Your task to perform on an android device: When is my next meeting? Image 0: 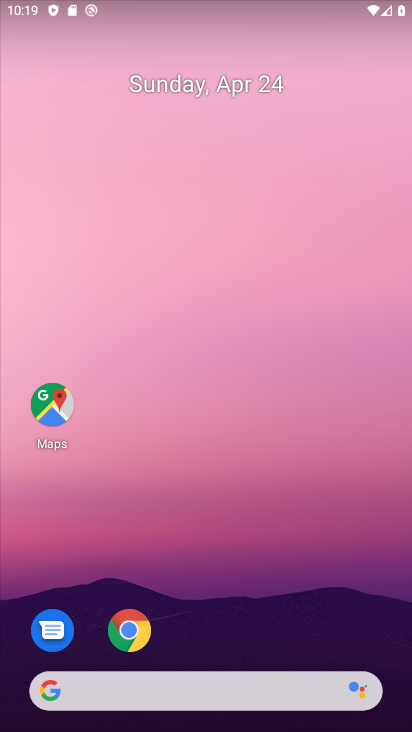
Step 0: drag from (191, 639) to (204, 157)
Your task to perform on an android device: When is my next meeting? Image 1: 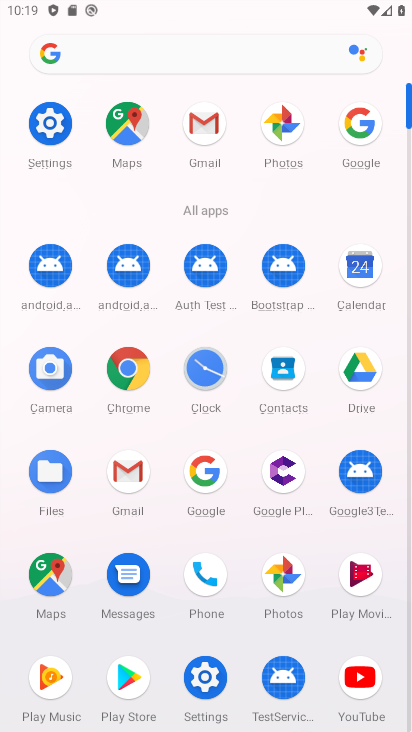
Step 1: click (359, 272)
Your task to perform on an android device: When is my next meeting? Image 2: 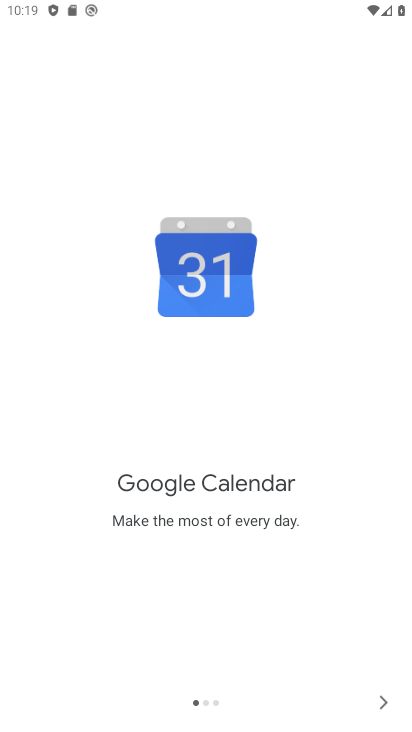
Step 2: click (377, 699)
Your task to perform on an android device: When is my next meeting? Image 3: 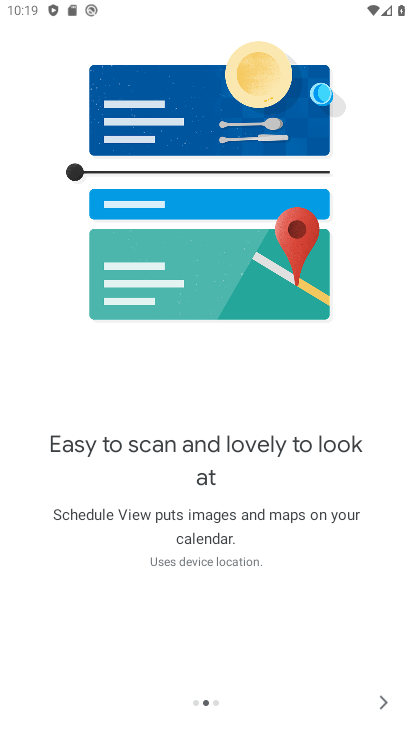
Step 3: click (375, 700)
Your task to perform on an android device: When is my next meeting? Image 4: 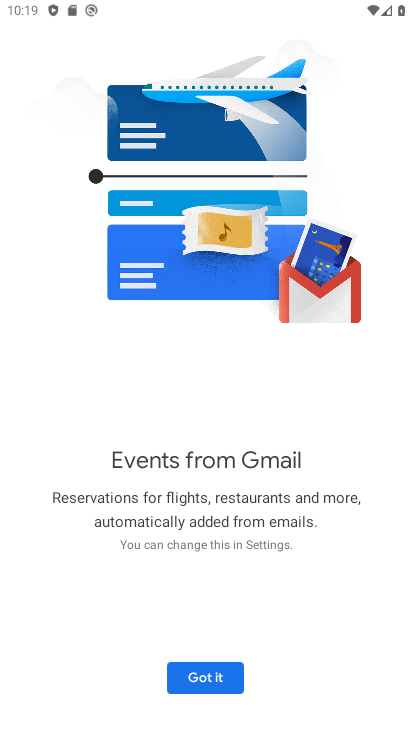
Step 4: click (191, 681)
Your task to perform on an android device: When is my next meeting? Image 5: 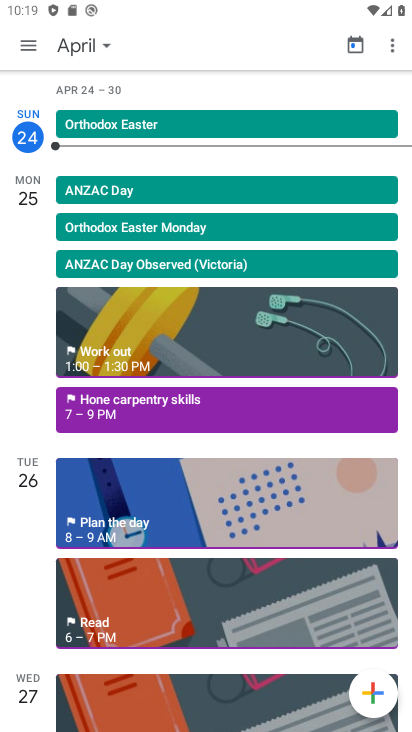
Step 5: click (80, 52)
Your task to perform on an android device: When is my next meeting? Image 6: 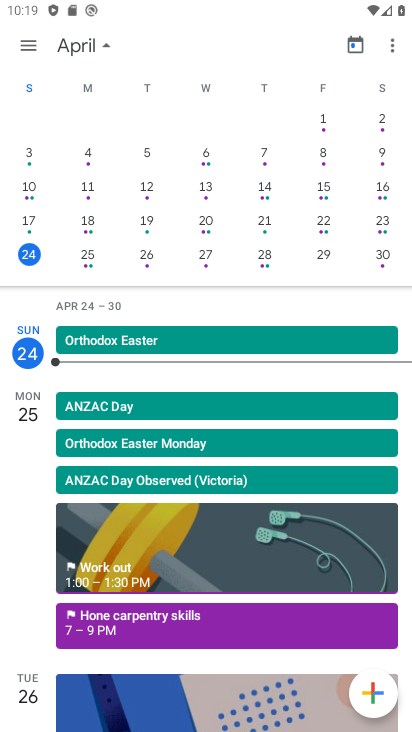
Step 6: click (82, 256)
Your task to perform on an android device: When is my next meeting? Image 7: 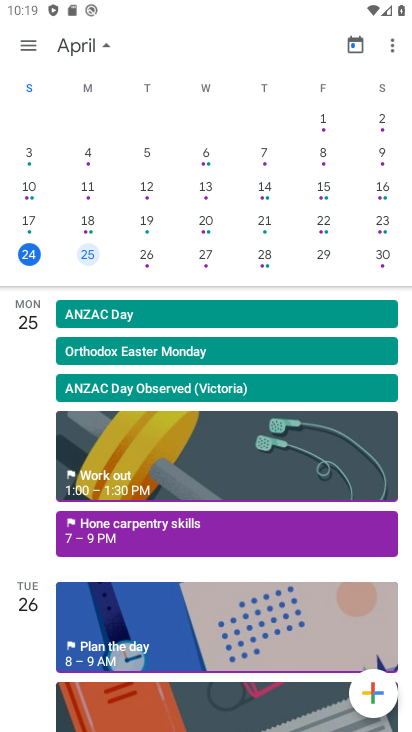
Step 7: click (161, 259)
Your task to perform on an android device: When is my next meeting? Image 8: 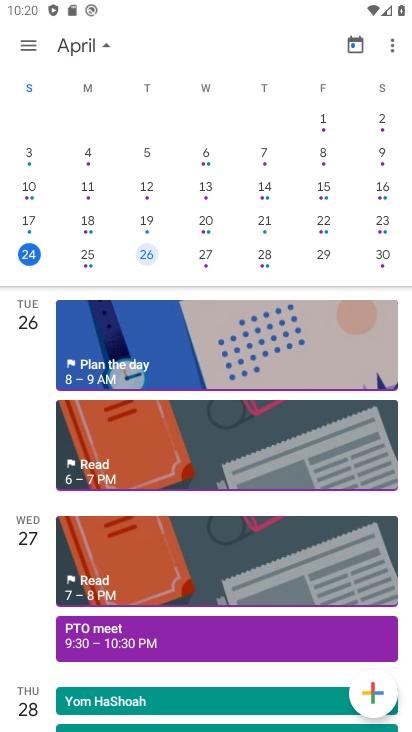
Step 8: click (205, 258)
Your task to perform on an android device: When is my next meeting? Image 9: 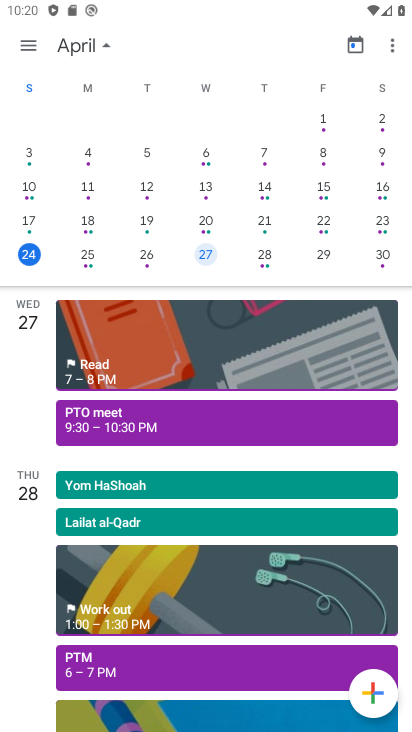
Step 9: click (125, 432)
Your task to perform on an android device: When is my next meeting? Image 10: 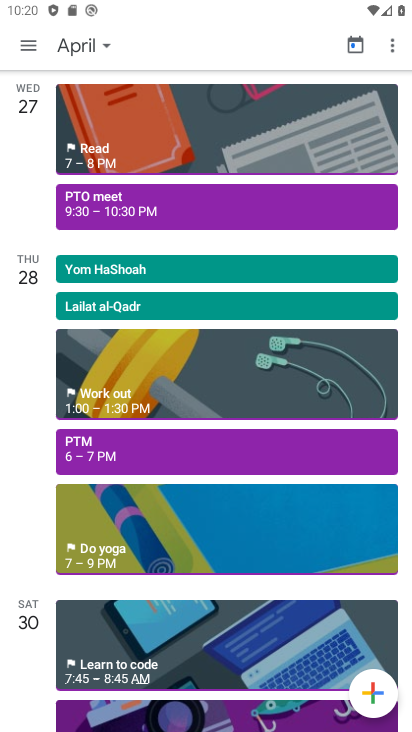
Step 10: task complete